Your task to perform on an android device: check the backup settings in the google photos Image 0: 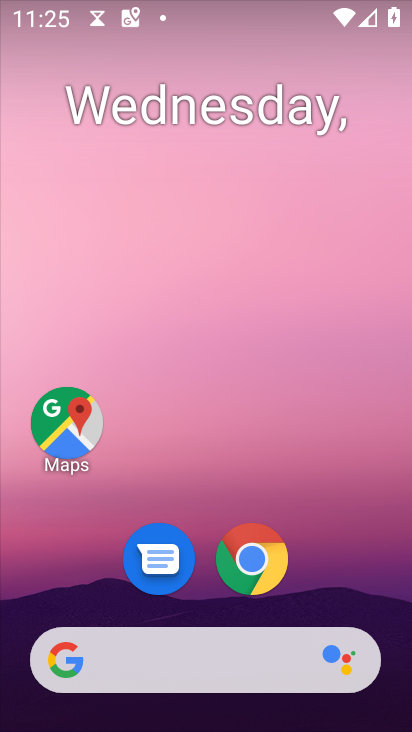
Step 0: drag from (383, 606) to (260, 1)
Your task to perform on an android device: check the backup settings in the google photos Image 1: 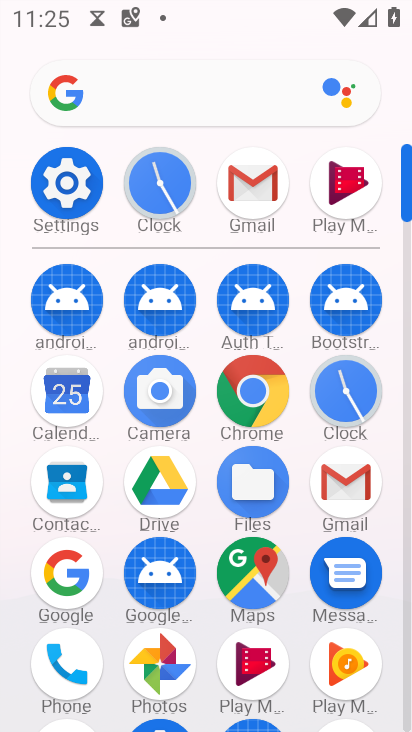
Step 1: click (165, 645)
Your task to perform on an android device: check the backup settings in the google photos Image 2: 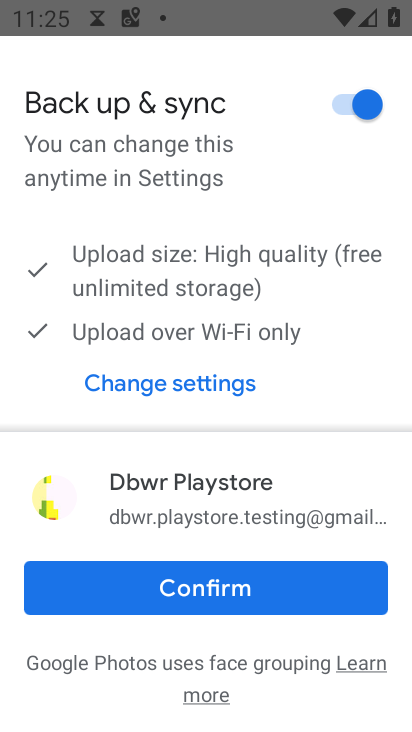
Step 2: click (236, 596)
Your task to perform on an android device: check the backup settings in the google photos Image 3: 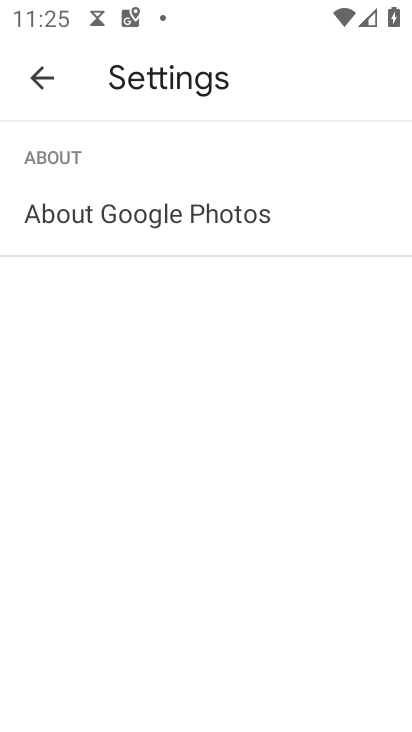
Step 3: click (51, 83)
Your task to perform on an android device: check the backup settings in the google photos Image 4: 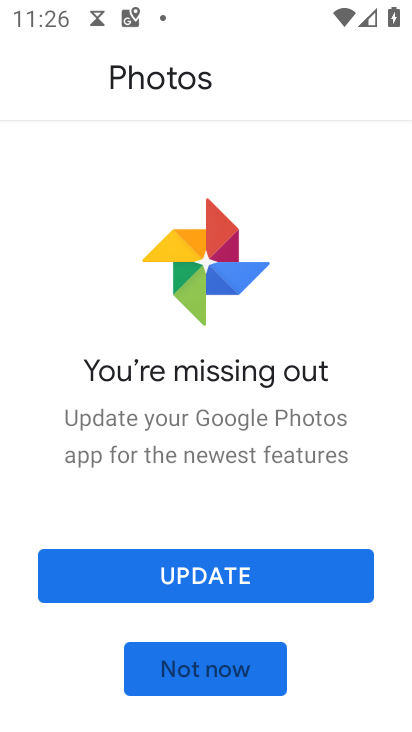
Step 4: click (208, 568)
Your task to perform on an android device: check the backup settings in the google photos Image 5: 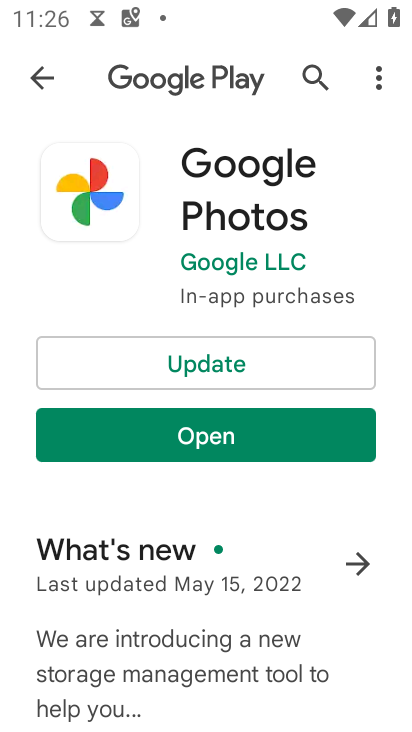
Step 5: click (277, 367)
Your task to perform on an android device: check the backup settings in the google photos Image 6: 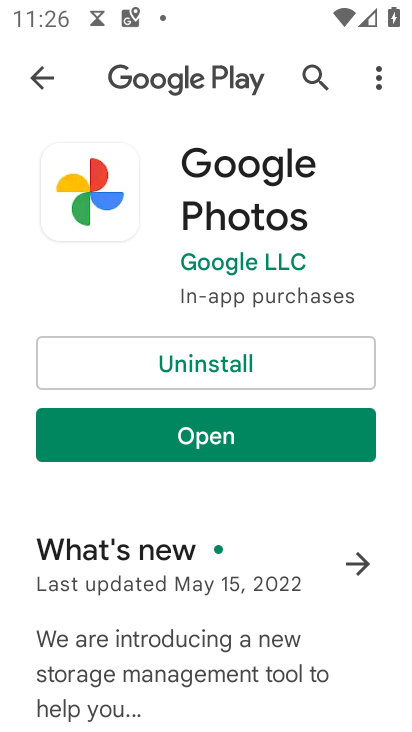
Step 6: click (332, 431)
Your task to perform on an android device: check the backup settings in the google photos Image 7: 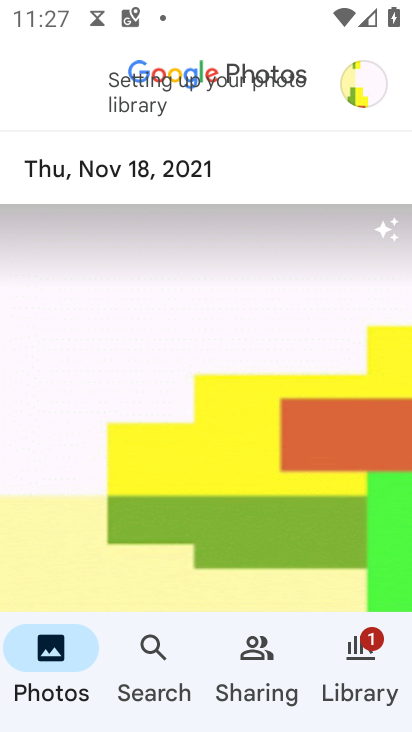
Step 7: click (353, 81)
Your task to perform on an android device: check the backup settings in the google photos Image 8: 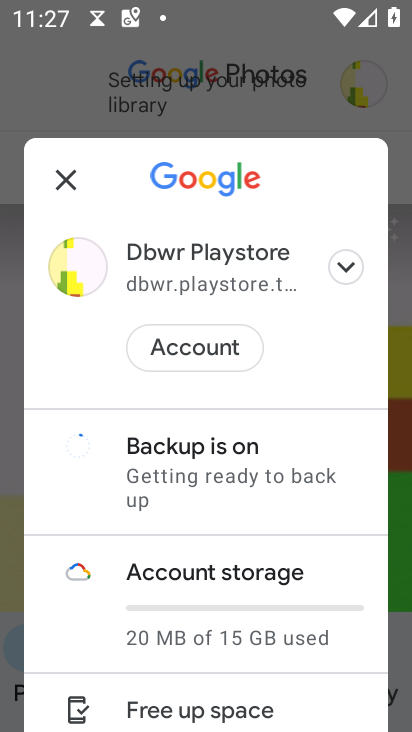
Step 8: drag from (267, 675) to (235, 350)
Your task to perform on an android device: check the backup settings in the google photos Image 9: 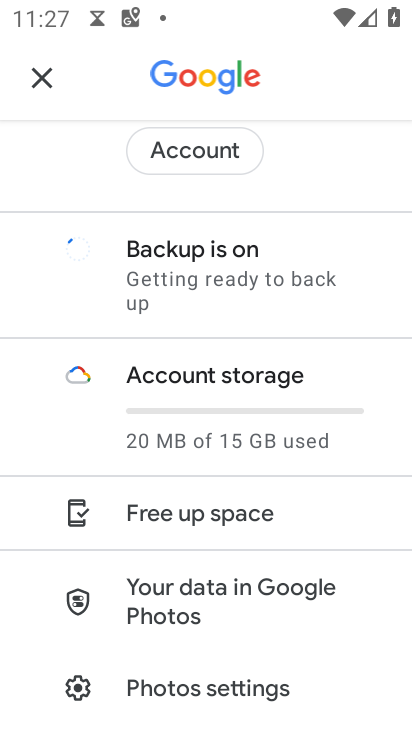
Step 9: drag from (276, 630) to (260, 392)
Your task to perform on an android device: check the backup settings in the google photos Image 10: 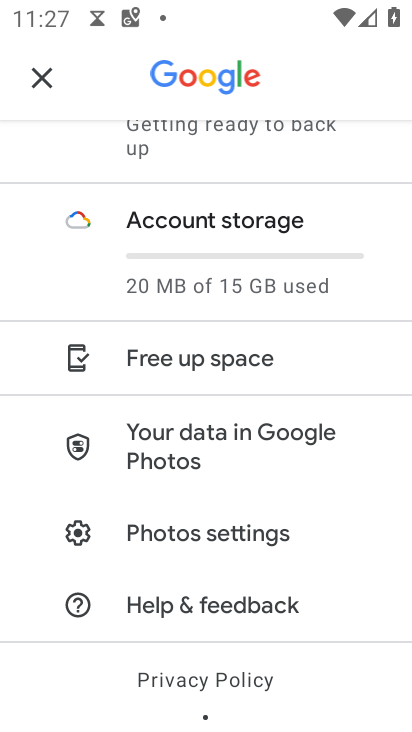
Step 10: click (269, 535)
Your task to perform on an android device: check the backup settings in the google photos Image 11: 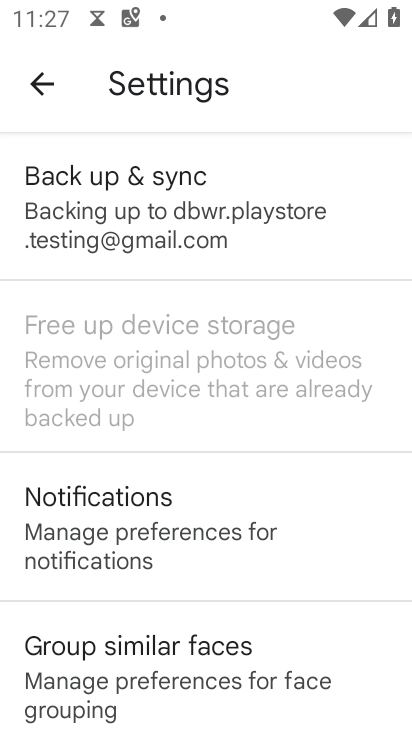
Step 11: click (223, 175)
Your task to perform on an android device: check the backup settings in the google photos Image 12: 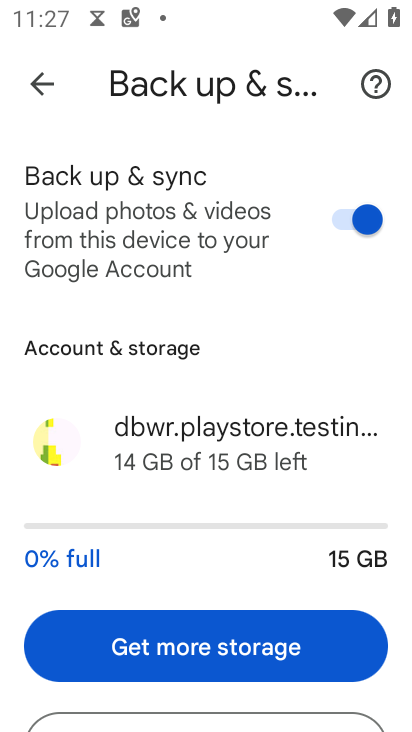
Step 12: task complete